Your task to perform on an android device: change text size in settings app Image 0: 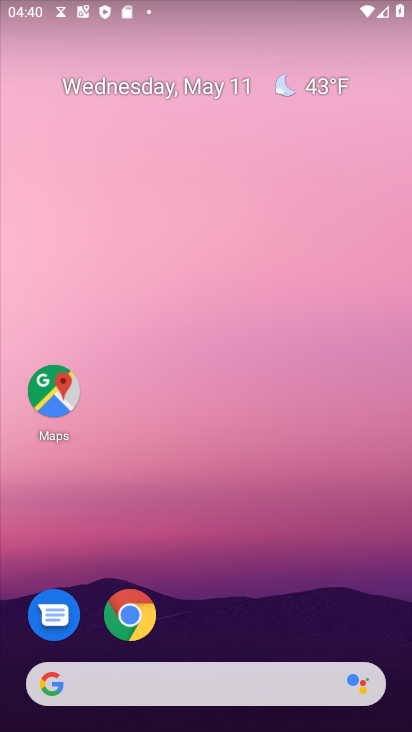
Step 0: drag from (250, 542) to (220, 31)
Your task to perform on an android device: change text size in settings app Image 1: 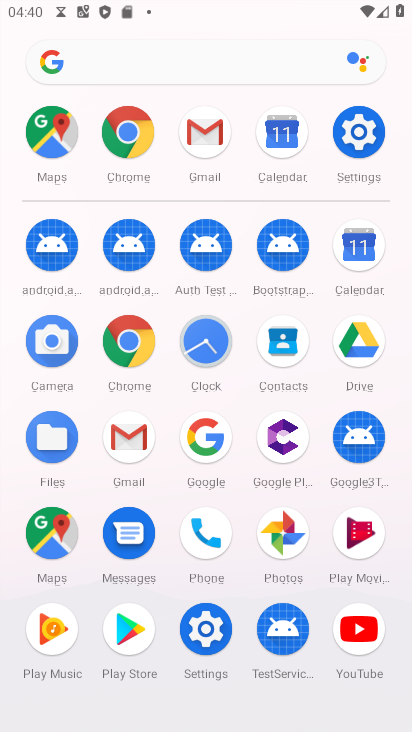
Step 1: drag from (9, 563) to (23, 286)
Your task to perform on an android device: change text size in settings app Image 2: 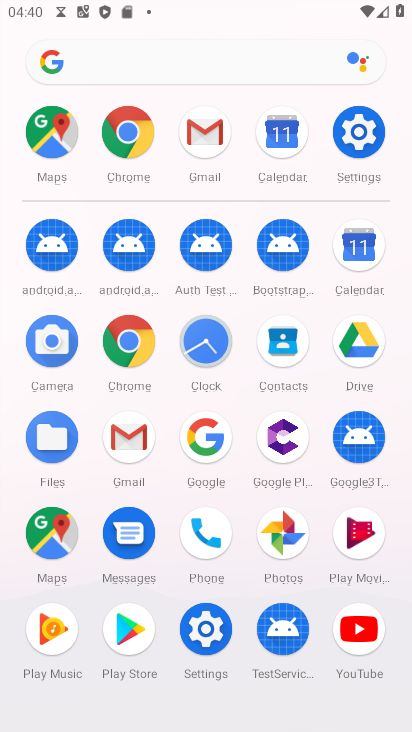
Step 2: click (209, 628)
Your task to perform on an android device: change text size in settings app Image 3: 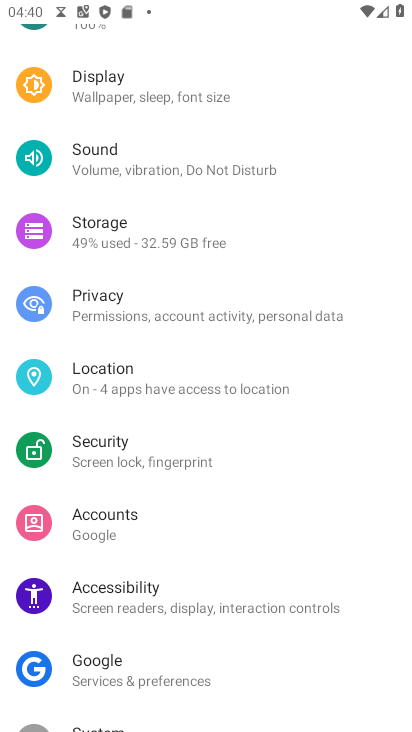
Step 3: click (165, 85)
Your task to perform on an android device: change text size in settings app Image 4: 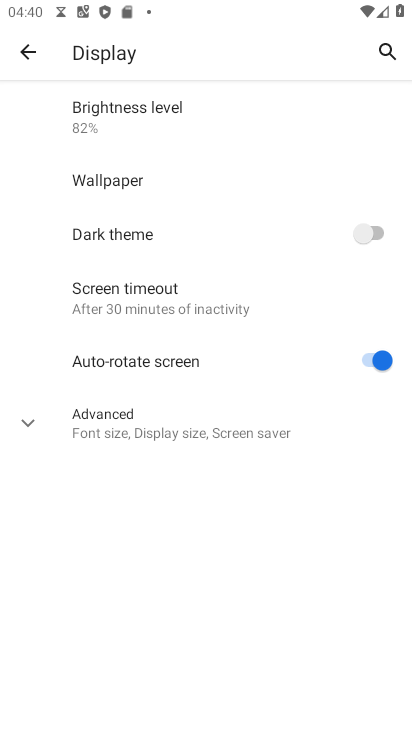
Step 4: click (140, 446)
Your task to perform on an android device: change text size in settings app Image 5: 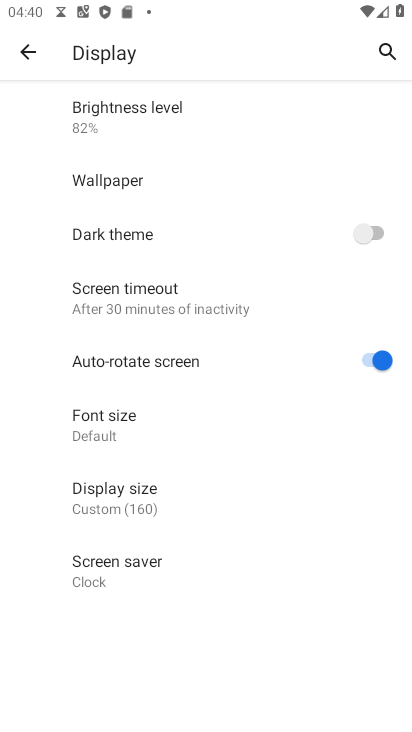
Step 5: click (151, 433)
Your task to perform on an android device: change text size in settings app Image 6: 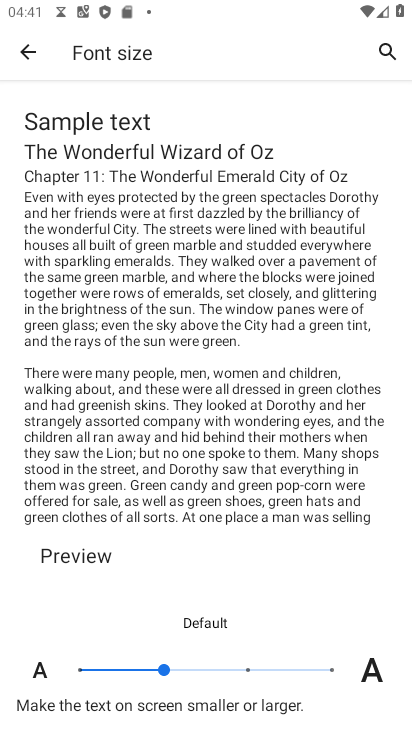
Step 6: click (327, 666)
Your task to perform on an android device: change text size in settings app Image 7: 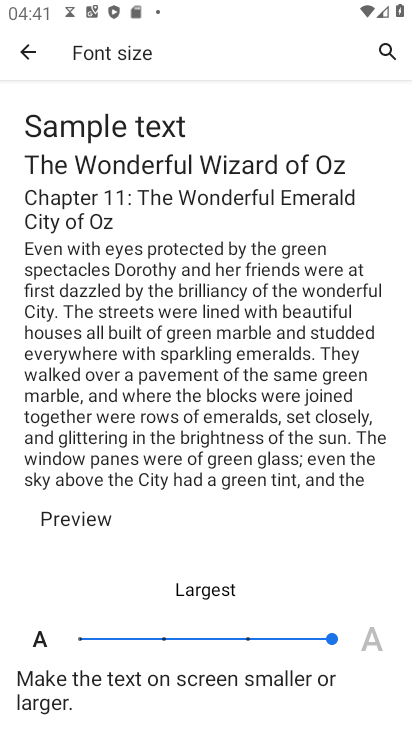
Step 7: task complete